Your task to perform on an android device: change keyboard looks Image 0: 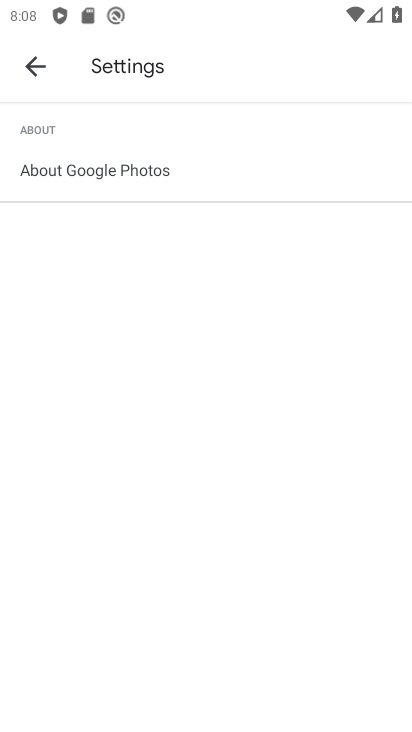
Step 0: press home button
Your task to perform on an android device: change keyboard looks Image 1: 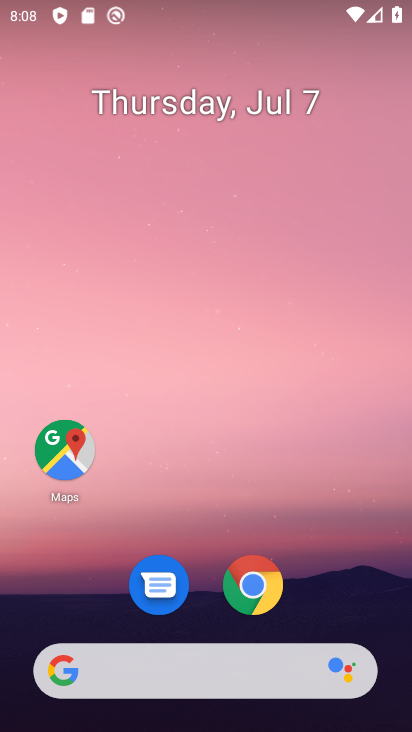
Step 1: drag from (315, 586) to (329, 33)
Your task to perform on an android device: change keyboard looks Image 2: 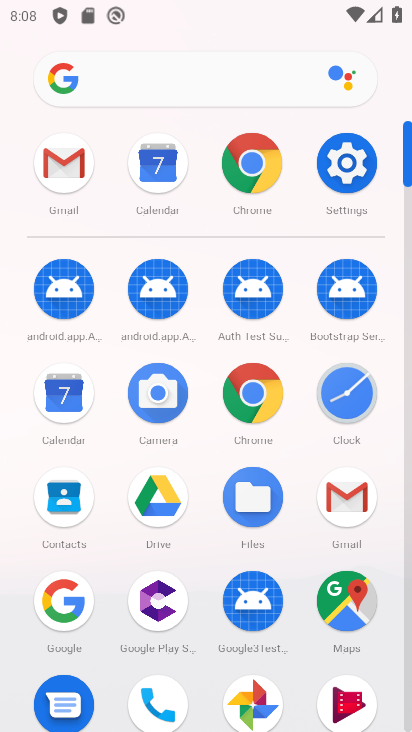
Step 2: click (344, 160)
Your task to perform on an android device: change keyboard looks Image 3: 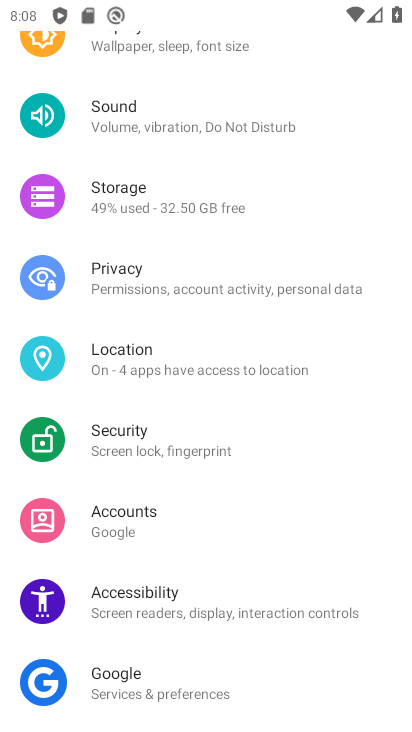
Step 3: drag from (241, 252) to (231, 351)
Your task to perform on an android device: change keyboard looks Image 4: 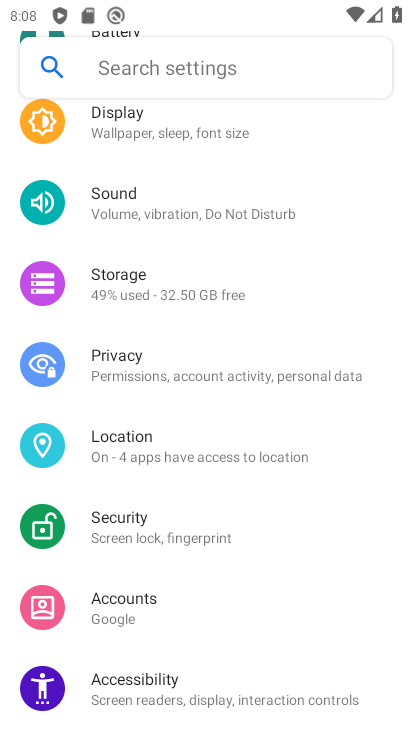
Step 4: drag from (228, 500) to (246, 185)
Your task to perform on an android device: change keyboard looks Image 5: 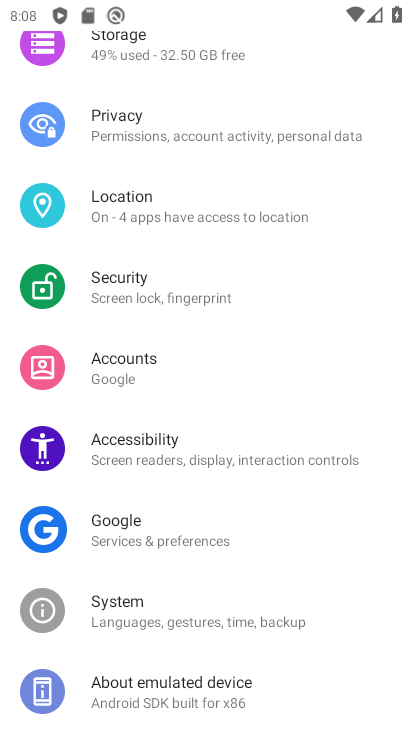
Step 5: click (213, 620)
Your task to perform on an android device: change keyboard looks Image 6: 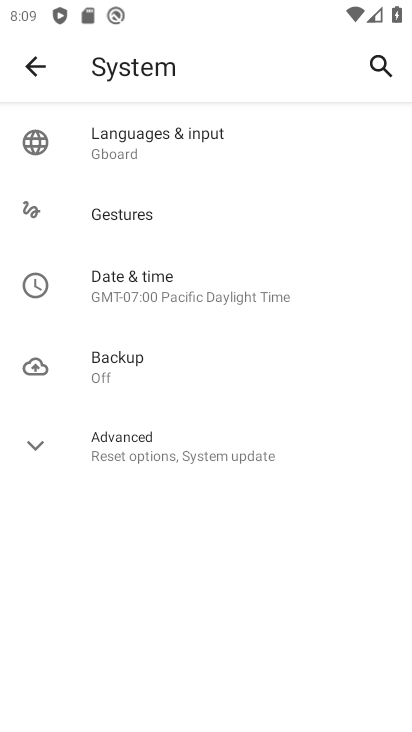
Step 6: click (182, 134)
Your task to perform on an android device: change keyboard looks Image 7: 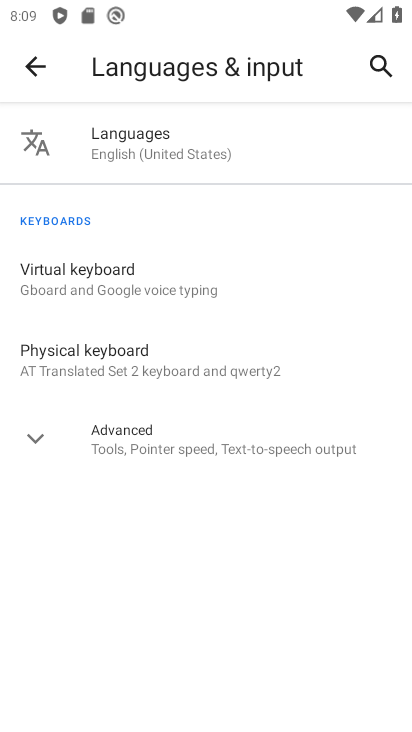
Step 7: click (130, 280)
Your task to perform on an android device: change keyboard looks Image 8: 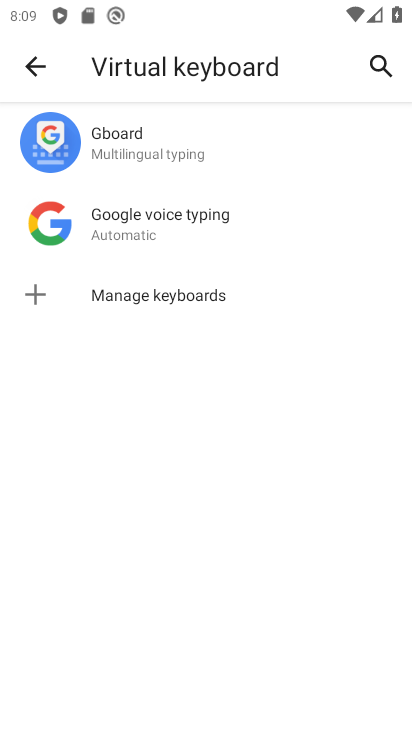
Step 8: click (129, 145)
Your task to perform on an android device: change keyboard looks Image 9: 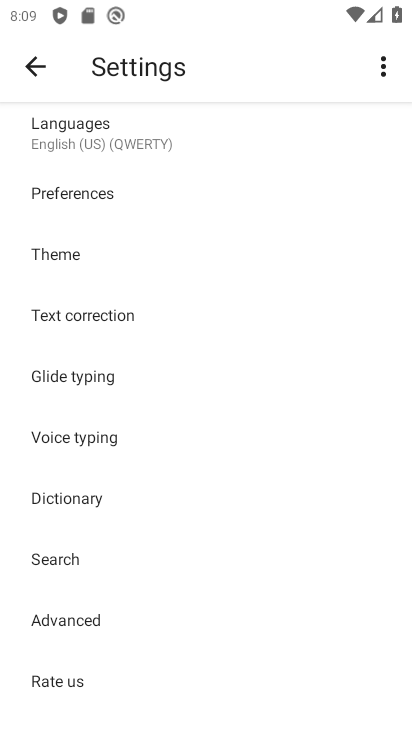
Step 9: click (60, 256)
Your task to perform on an android device: change keyboard looks Image 10: 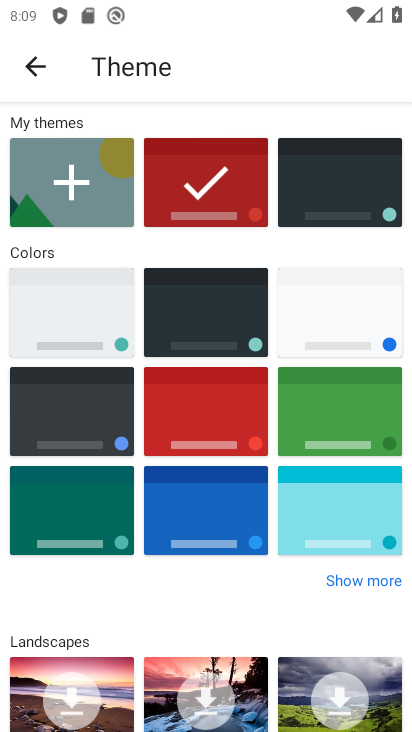
Step 10: click (339, 393)
Your task to perform on an android device: change keyboard looks Image 11: 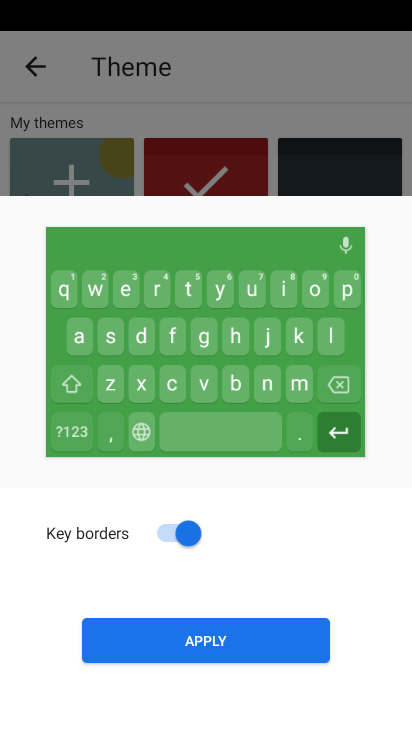
Step 11: click (244, 640)
Your task to perform on an android device: change keyboard looks Image 12: 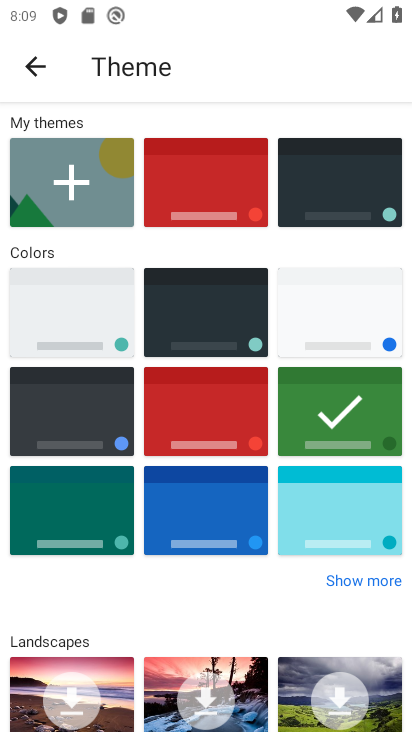
Step 12: task complete